Your task to perform on an android device: add a label to a message in the gmail app Image 0: 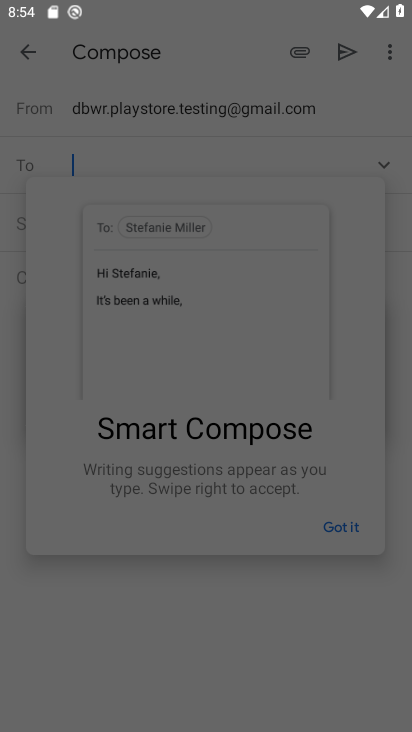
Step 0: press home button
Your task to perform on an android device: add a label to a message in the gmail app Image 1: 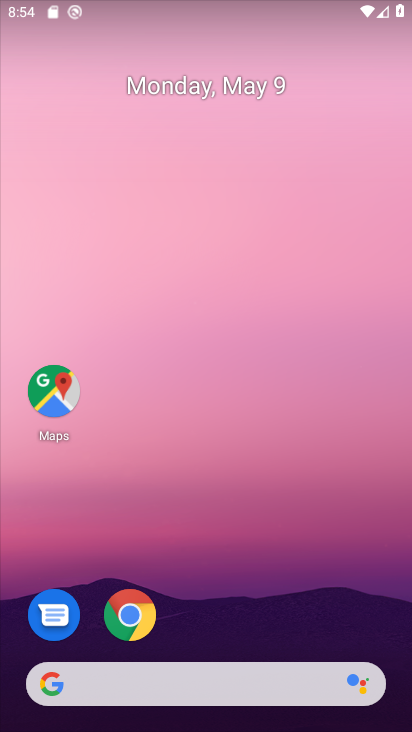
Step 1: drag from (300, 703) to (370, 135)
Your task to perform on an android device: add a label to a message in the gmail app Image 2: 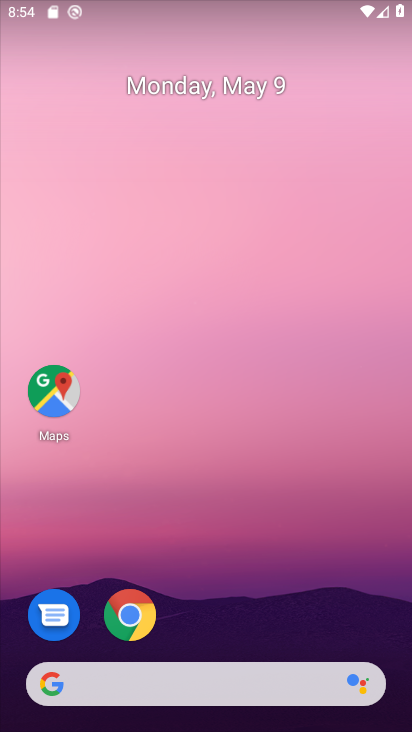
Step 2: drag from (318, 669) to (334, 66)
Your task to perform on an android device: add a label to a message in the gmail app Image 3: 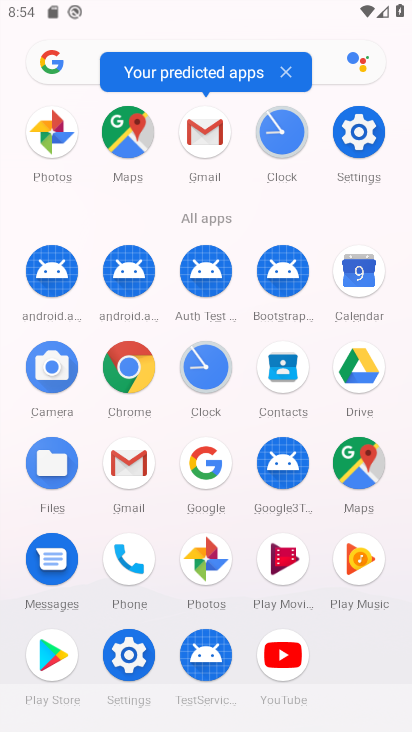
Step 3: click (137, 463)
Your task to perform on an android device: add a label to a message in the gmail app Image 4: 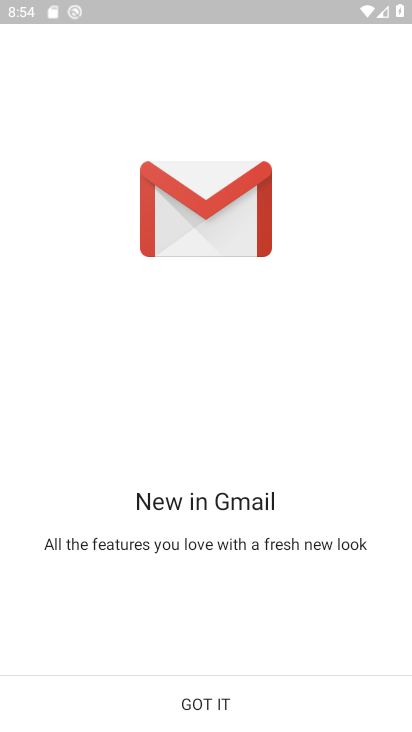
Step 4: click (213, 696)
Your task to perform on an android device: add a label to a message in the gmail app Image 5: 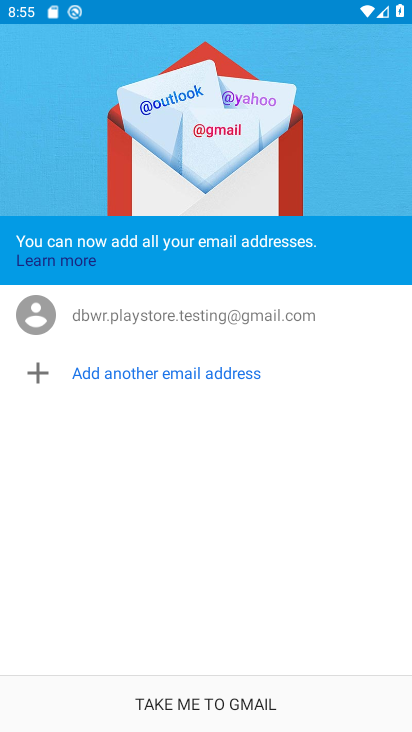
Step 5: click (212, 706)
Your task to perform on an android device: add a label to a message in the gmail app Image 6: 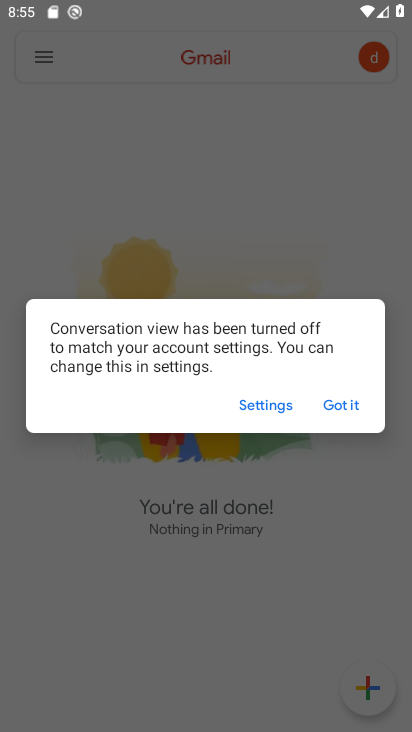
Step 6: click (327, 396)
Your task to perform on an android device: add a label to a message in the gmail app Image 7: 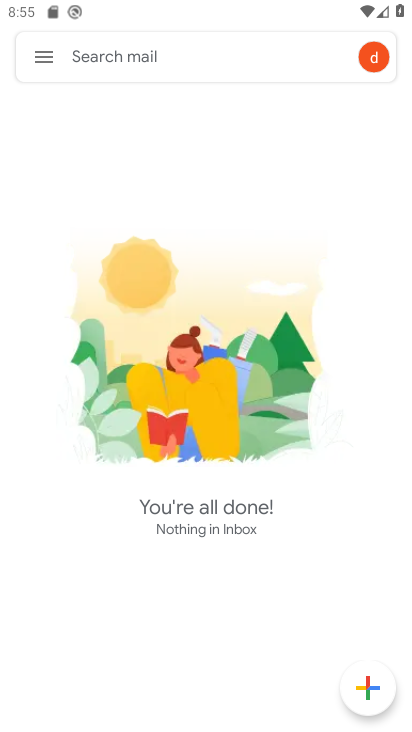
Step 7: click (53, 68)
Your task to perform on an android device: add a label to a message in the gmail app Image 8: 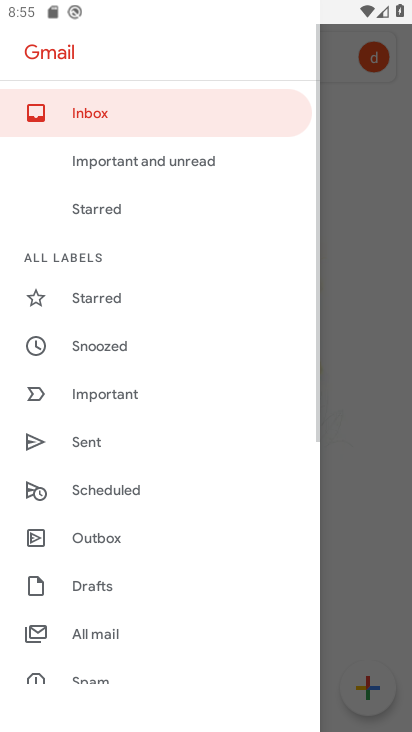
Step 8: drag from (90, 561) to (136, 140)
Your task to perform on an android device: add a label to a message in the gmail app Image 9: 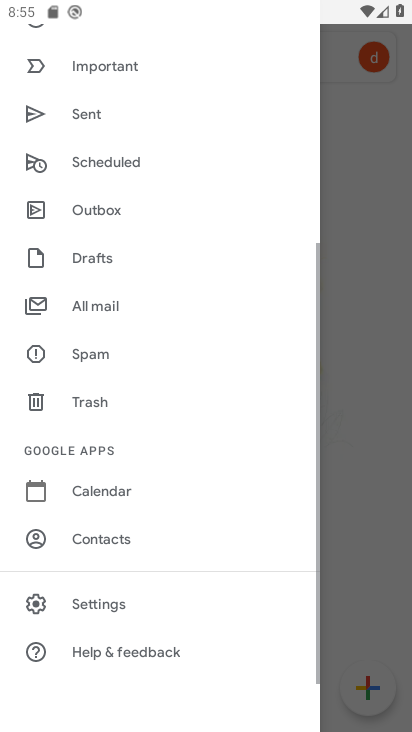
Step 9: click (97, 590)
Your task to perform on an android device: add a label to a message in the gmail app Image 10: 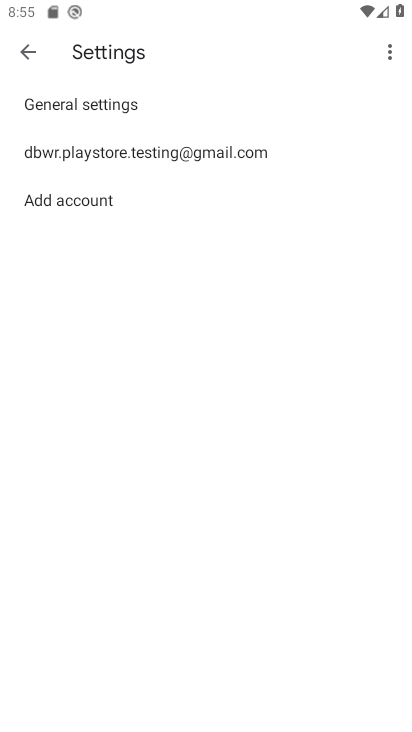
Step 10: click (144, 144)
Your task to perform on an android device: add a label to a message in the gmail app Image 11: 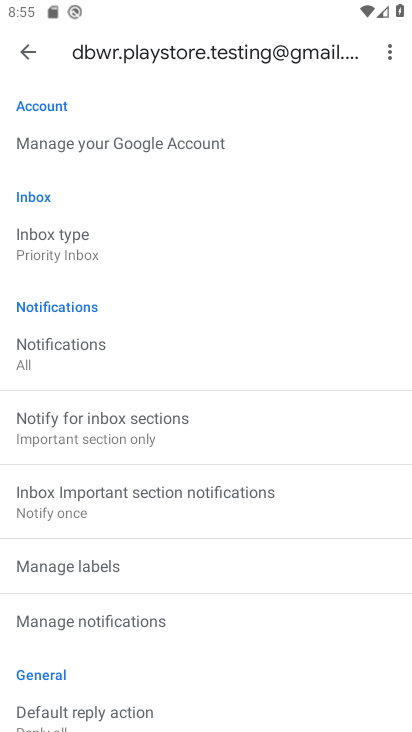
Step 11: click (110, 570)
Your task to perform on an android device: add a label to a message in the gmail app Image 12: 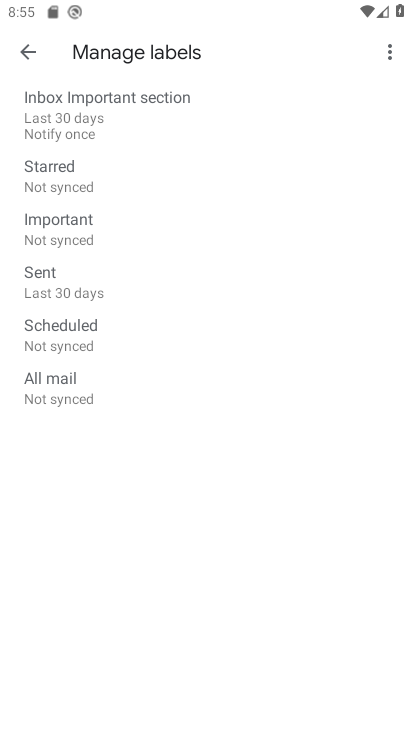
Step 12: click (103, 258)
Your task to perform on an android device: add a label to a message in the gmail app Image 13: 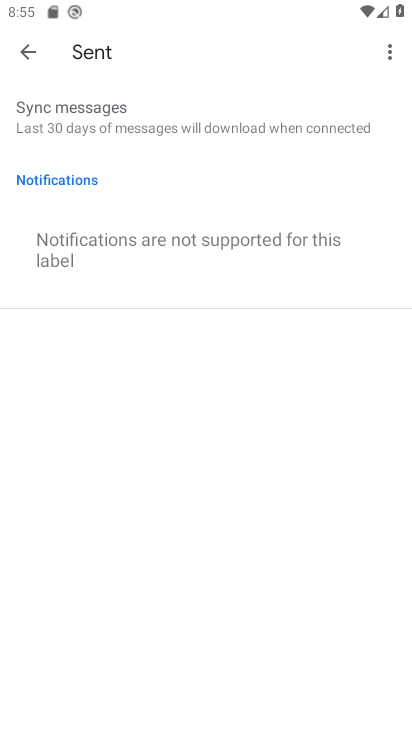
Step 13: task complete